Your task to perform on an android device: read, delete, or share a saved page in the chrome app Image 0: 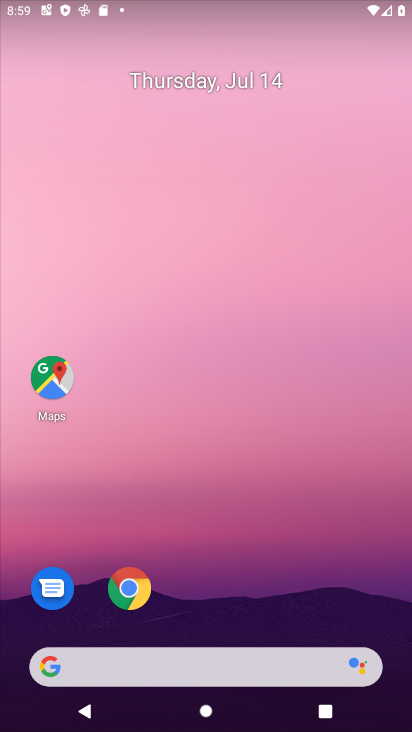
Step 0: drag from (255, 450) to (245, 129)
Your task to perform on an android device: read, delete, or share a saved page in the chrome app Image 1: 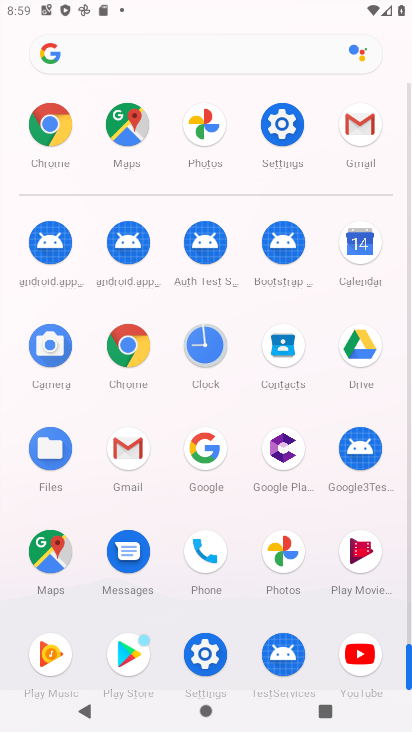
Step 1: click (133, 347)
Your task to perform on an android device: read, delete, or share a saved page in the chrome app Image 2: 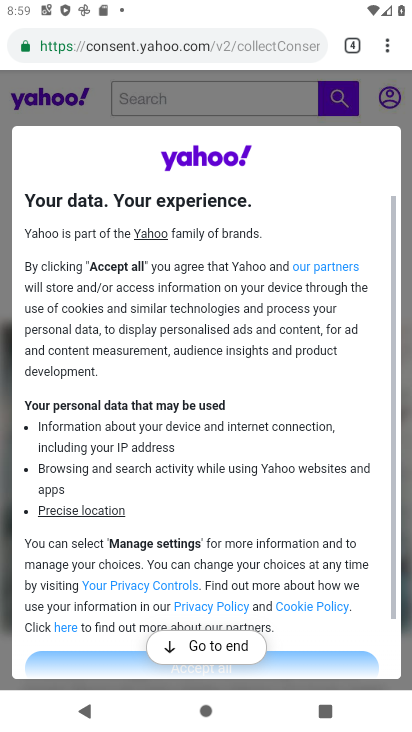
Step 2: click (383, 49)
Your task to perform on an android device: read, delete, or share a saved page in the chrome app Image 3: 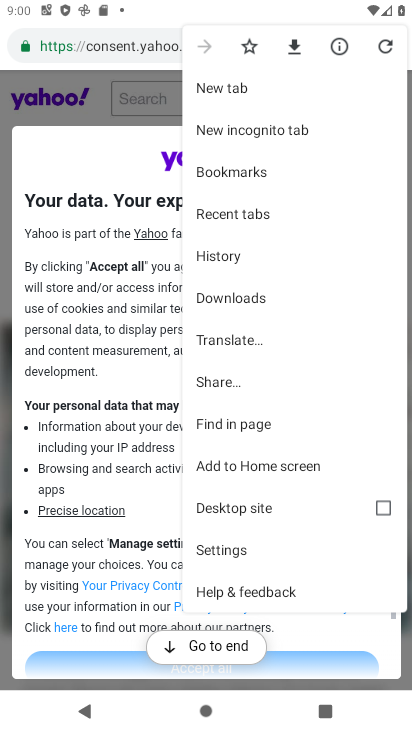
Step 3: click (239, 299)
Your task to perform on an android device: read, delete, or share a saved page in the chrome app Image 4: 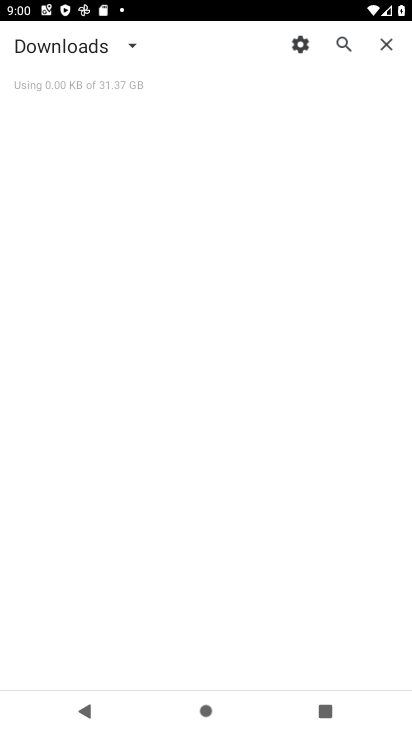
Step 4: task complete